Your task to perform on an android device: Go to Yahoo.com Image 0: 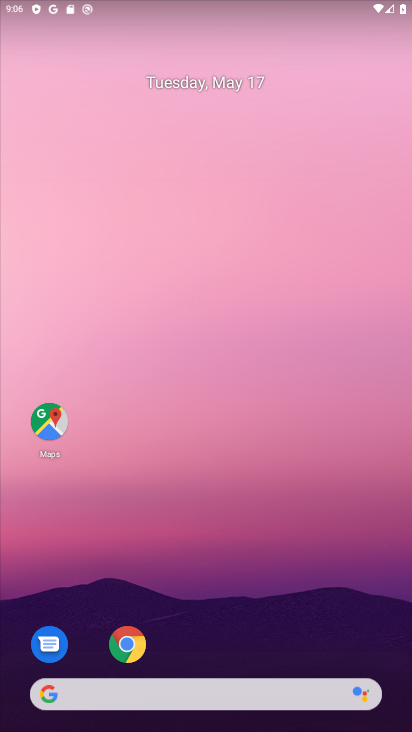
Step 0: click (135, 662)
Your task to perform on an android device: Go to Yahoo.com Image 1: 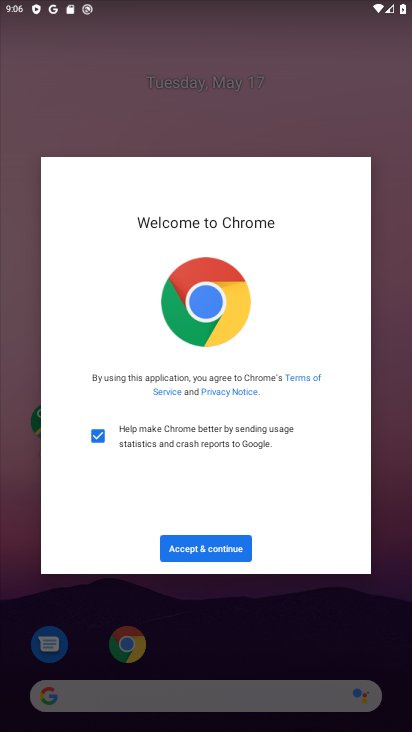
Step 1: click (214, 560)
Your task to perform on an android device: Go to Yahoo.com Image 2: 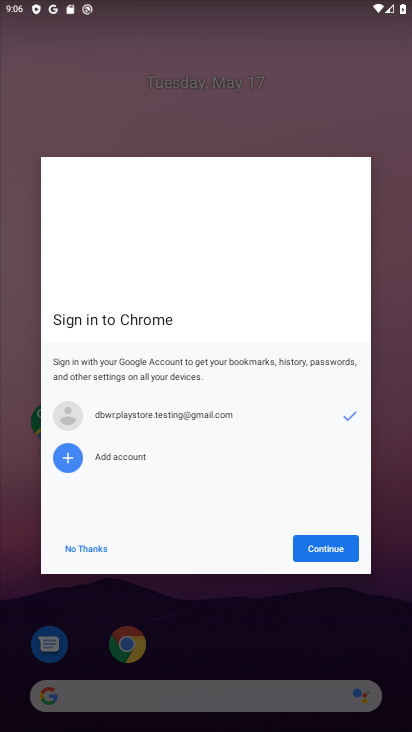
Step 2: click (350, 543)
Your task to perform on an android device: Go to Yahoo.com Image 3: 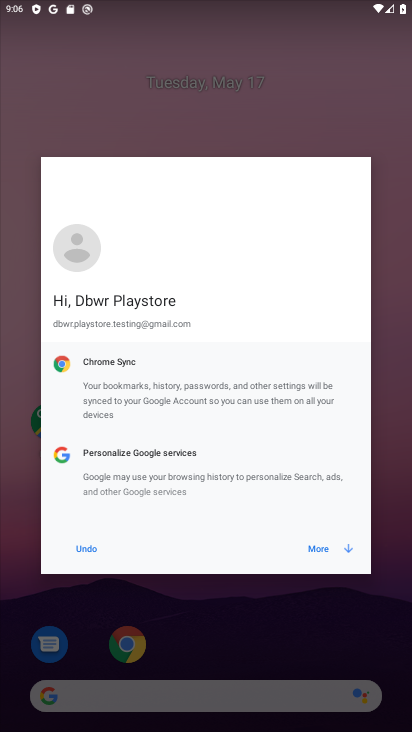
Step 3: click (316, 554)
Your task to perform on an android device: Go to Yahoo.com Image 4: 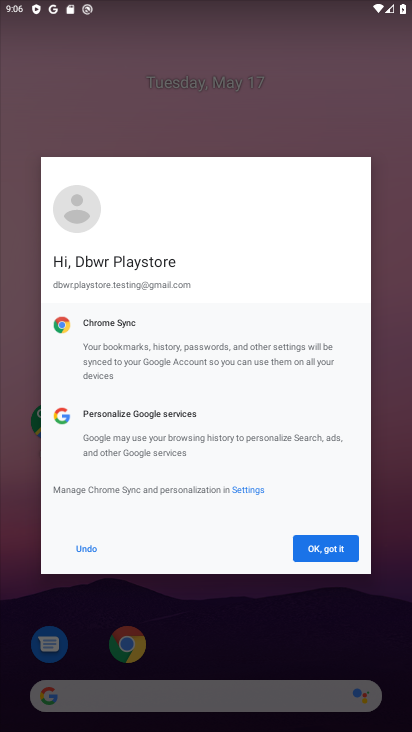
Step 4: click (316, 554)
Your task to perform on an android device: Go to Yahoo.com Image 5: 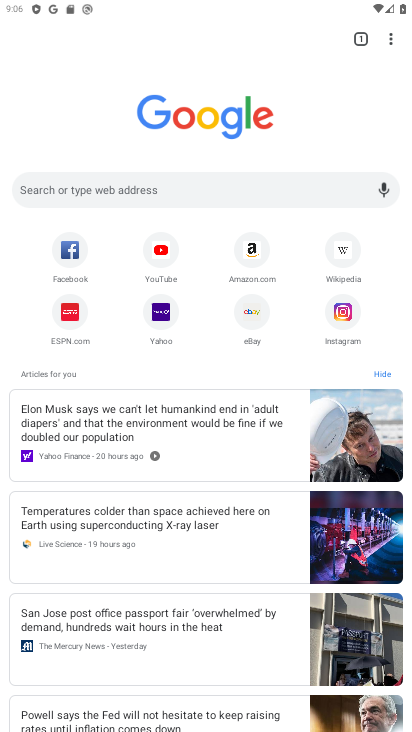
Step 5: click (171, 310)
Your task to perform on an android device: Go to Yahoo.com Image 6: 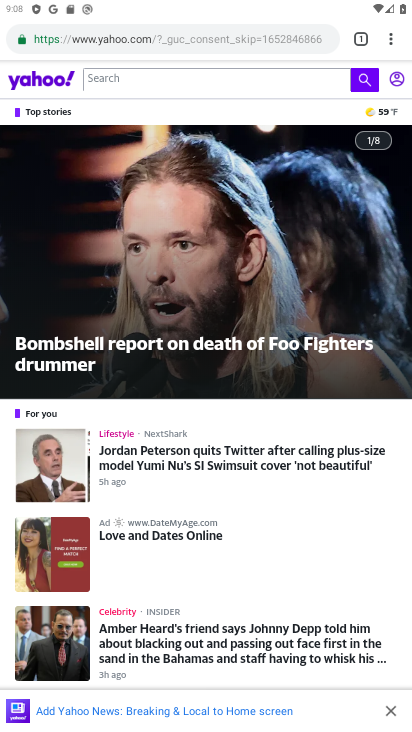
Step 6: task complete